Your task to perform on an android device: toggle notifications settings in the gmail app Image 0: 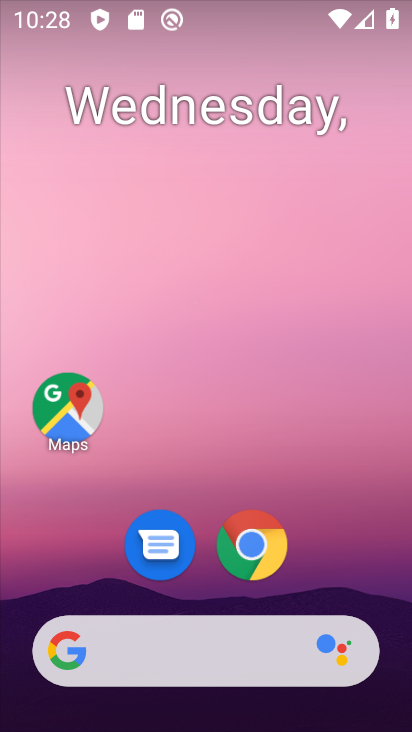
Step 0: drag from (190, 715) to (250, 114)
Your task to perform on an android device: toggle notifications settings in the gmail app Image 1: 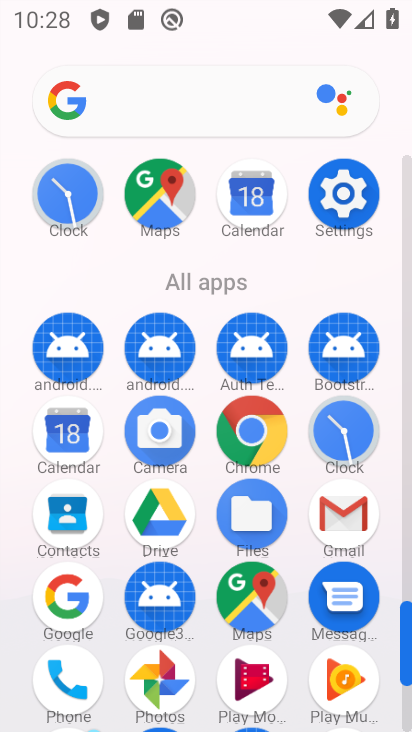
Step 1: click (347, 513)
Your task to perform on an android device: toggle notifications settings in the gmail app Image 2: 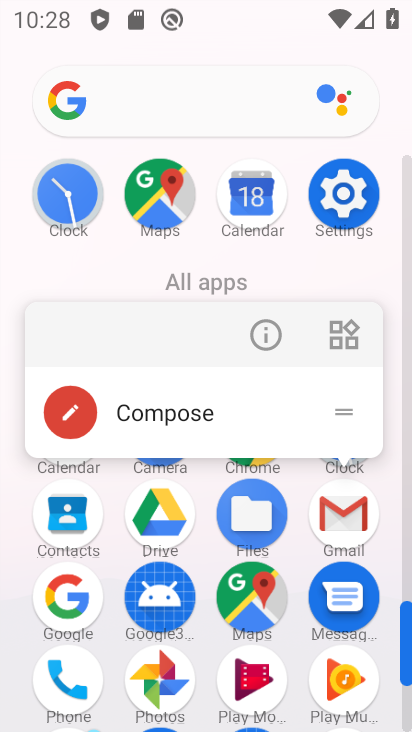
Step 2: click (267, 336)
Your task to perform on an android device: toggle notifications settings in the gmail app Image 3: 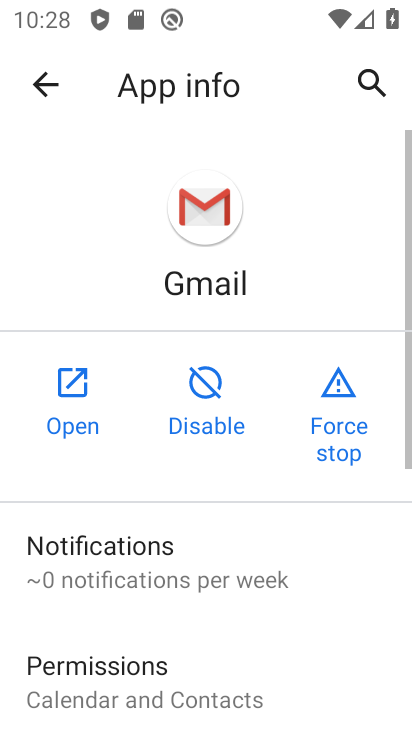
Step 3: click (181, 555)
Your task to perform on an android device: toggle notifications settings in the gmail app Image 4: 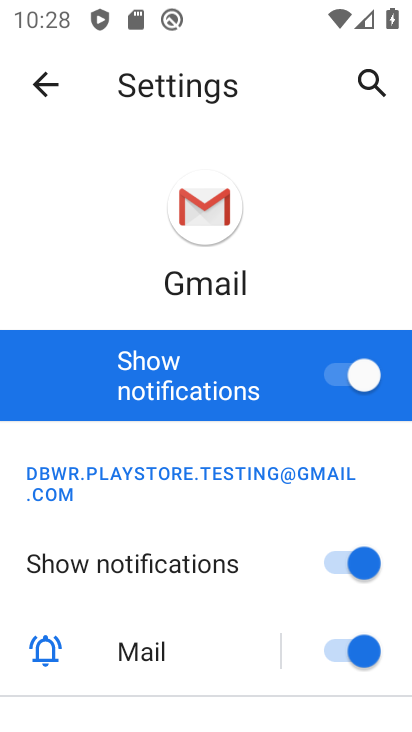
Step 4: click (368, 377)
Your task to perform on an android device: toggle notifications settings in the gmail app Image 5: 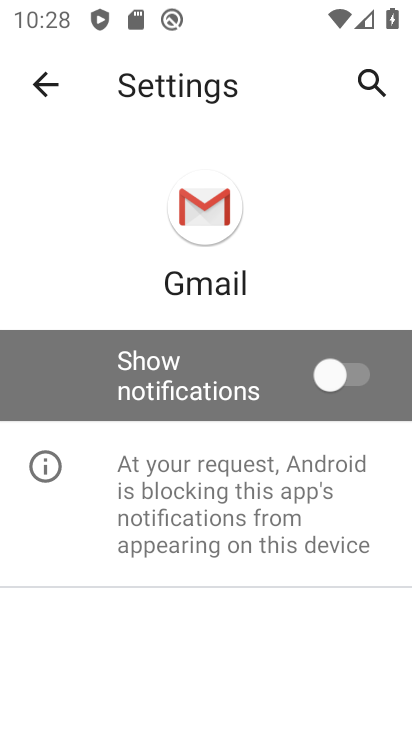
Step 5: task complete